Your task to perform on an android device: Search for pizza restaurants on Maps Image 0: 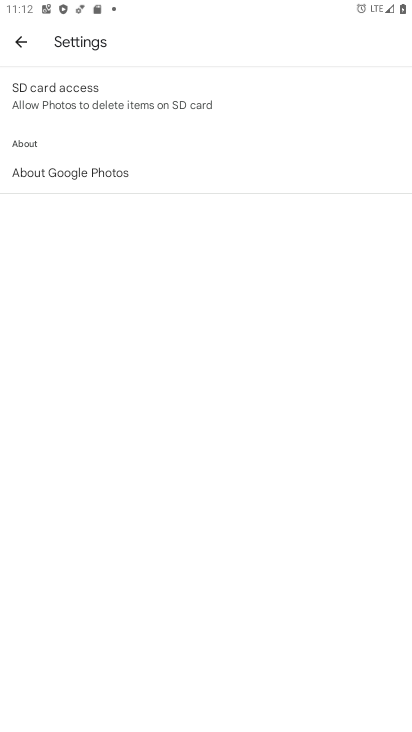
Step 0: press home button
Your task to perform on an android device: Search for pizza restaurants on Maps Image 1: 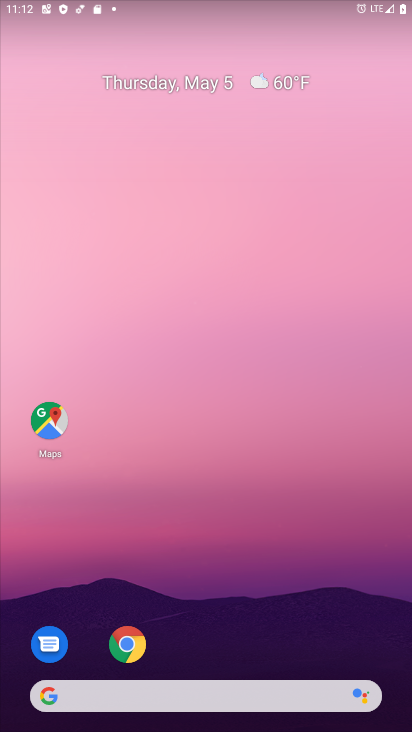
Step 1: click (53, 427)
Your task to perform on an android device: Search for pizza restaurants on Maps Image 2: 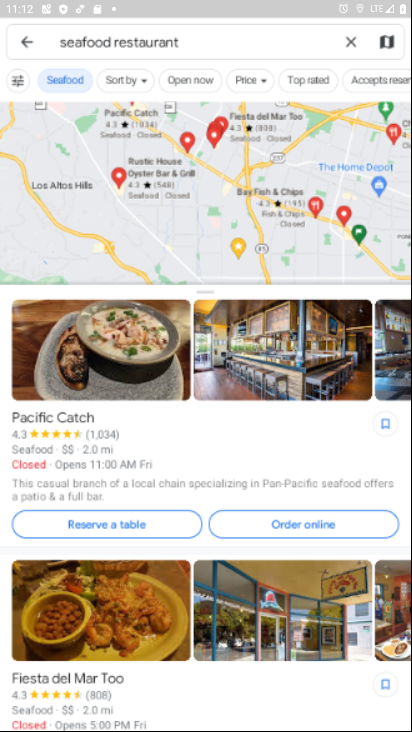
Step 2: click (348, 40)
Your task to perform on an android device: Search for pizza restaurants on Maps Image 3: 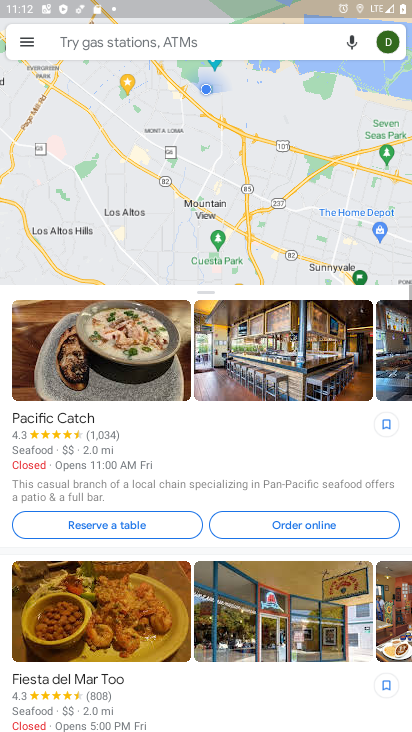
Step 3: click (208, 48)
Your task to perform on an android device: Search for pizza restaurants on Maps Image 4: 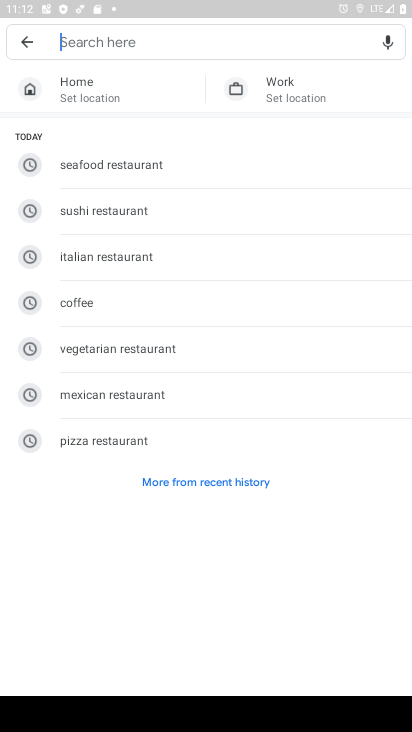
Step 4: click (110, 443)
Your task to perform on an android device: Search for pizza restaurants on Maps Image 5: 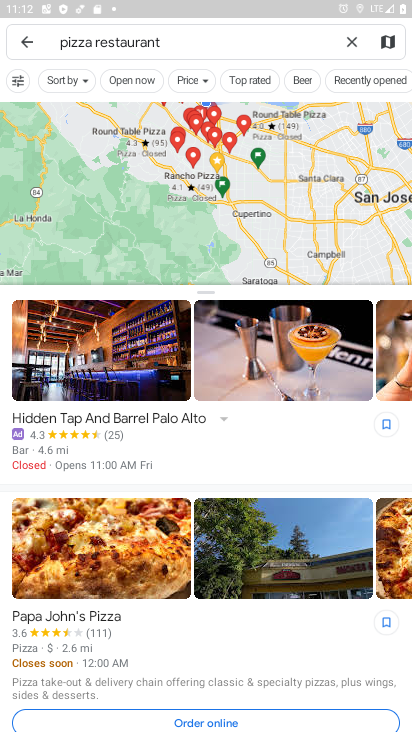
Step 5: task complete